Your task to perform on an android device: toggle notifications settings in the gmail app Image 0: 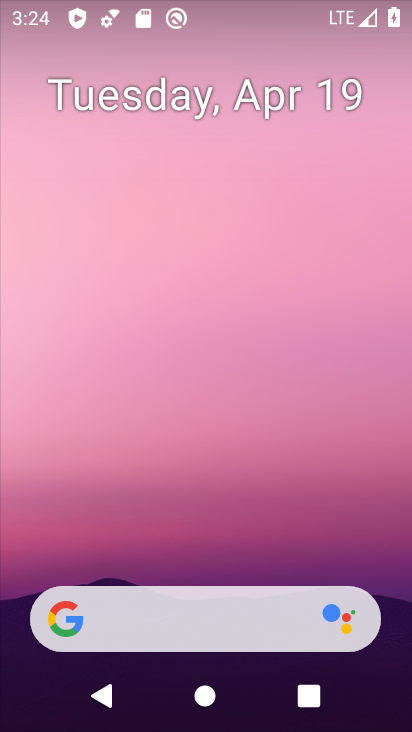
Step 0: drag from (244, 567) to (299, 0)
Your task to perform on an android device: toggle notifications settings in the gmail app Image 1: 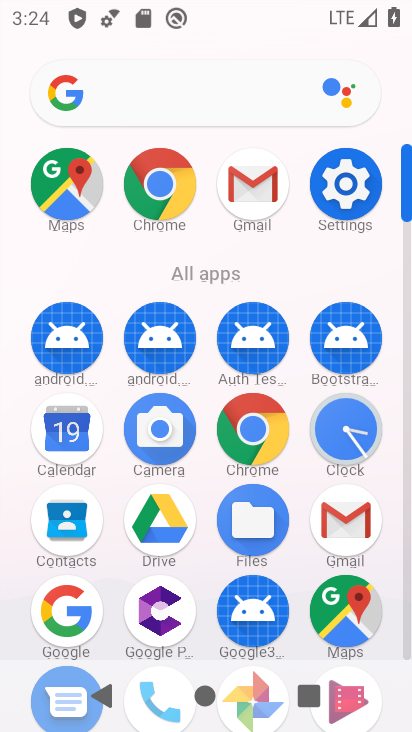
Step 1: click (251, 192)
Your task to perform on an android device: toggle notifications settings in the gmail app Image 2: 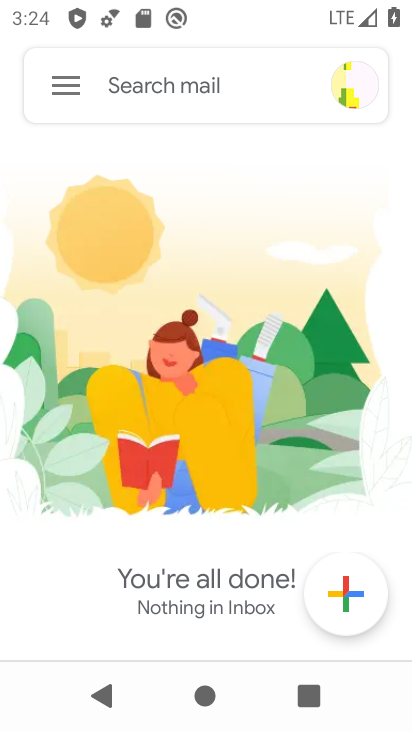
Step 2: click (68, 88)
Your task to perform on an android device: toggle notifications settings in the gmail app Image 3: 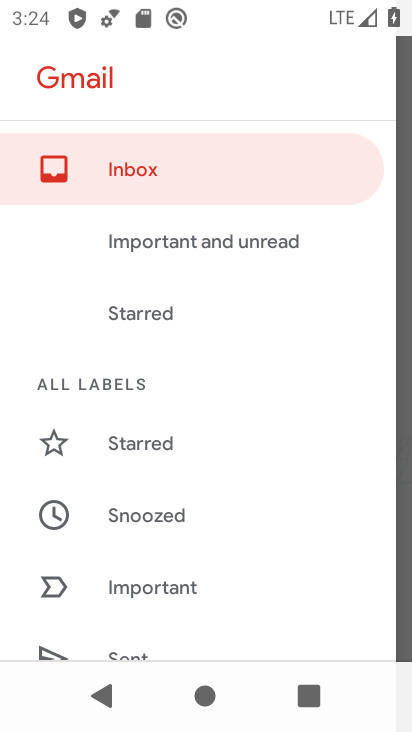
Step 3: drag from (198, 504) to (213, 403)
Your task to perform on an android device: toggle notifications settings in the gmail app Image 4: 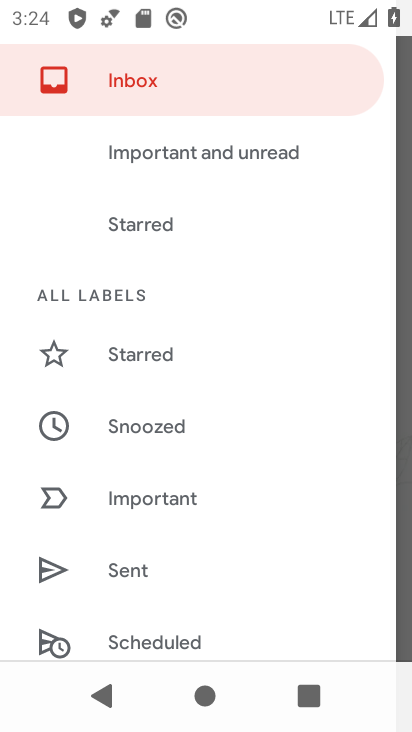
Step 4: drag from (219, 534) to (246, 435)
Your task to perform on an android device: toggle notifications settings in the gmail app Image 5: 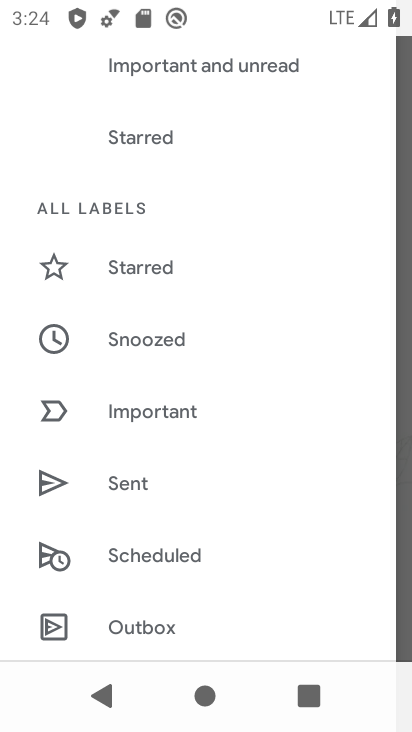
Step 5: drag from (205, 524) to (231, 440)
Your task to perform on an android device: toggle notifications settings in the gmail app Image 6: 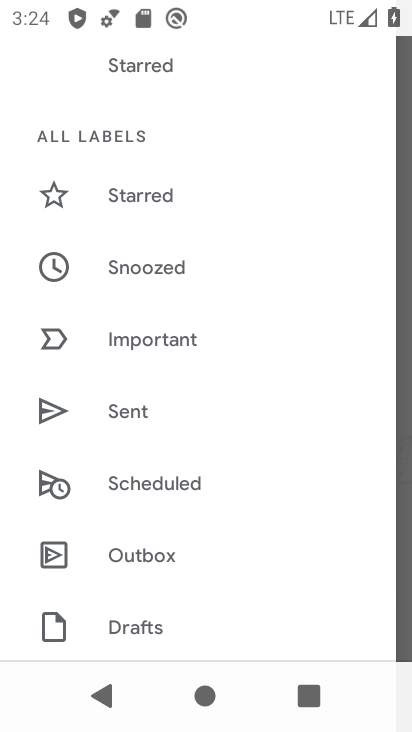
Step 6: drag from (199, 553) to (225, 454)
Your task to perform on an android device: toggle notifications settings in the gmail app Image 7: 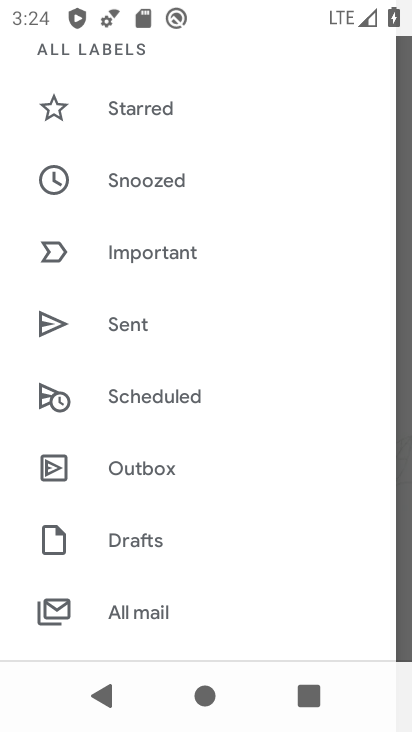
Step 7: drag from (206, 558) to (238, 461)
Your task to perform on an android device: toggle notifications settings in the gmail app Image 8: 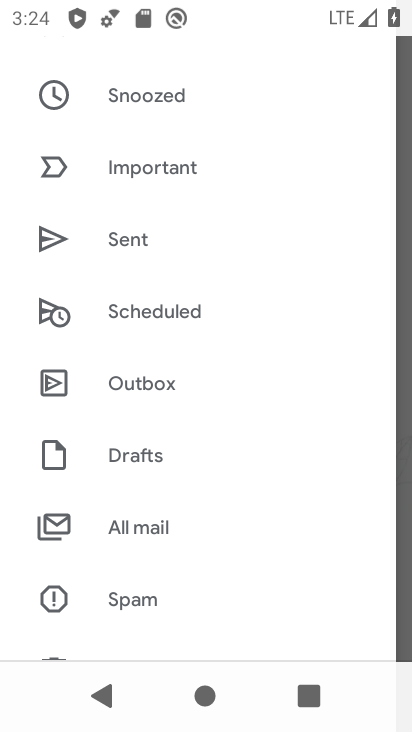
Step 8: drag from (193, 577) to (232, 461)
Your task to perform on an android device: toggle notifications settings in the gmail app Image 9: 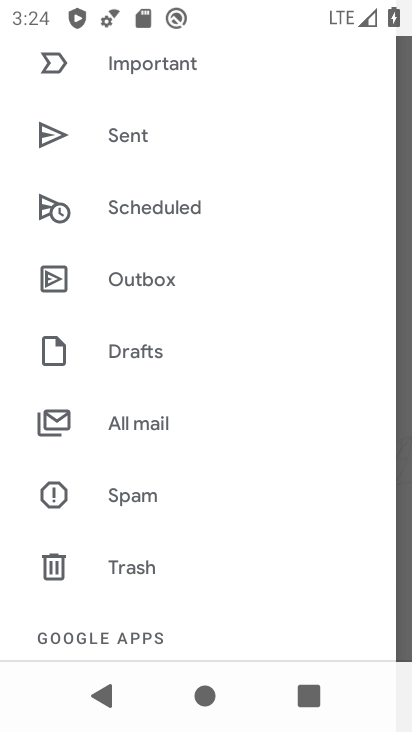
Step 9: drag from (190, 580) to (221, 454)
Your task to perform on an android device: toggle notifications settings in the gmail app Image 10: 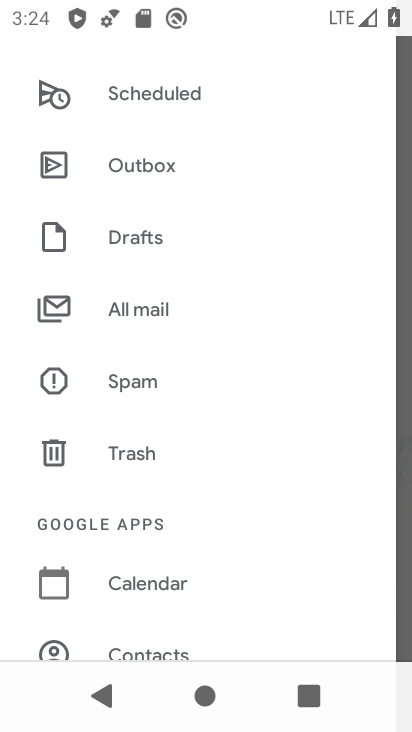
Step 10: drag from (195, 552) to (221, 480)
Your task to perform on an android device: toggle notifications settings in the gmail app Image 11: 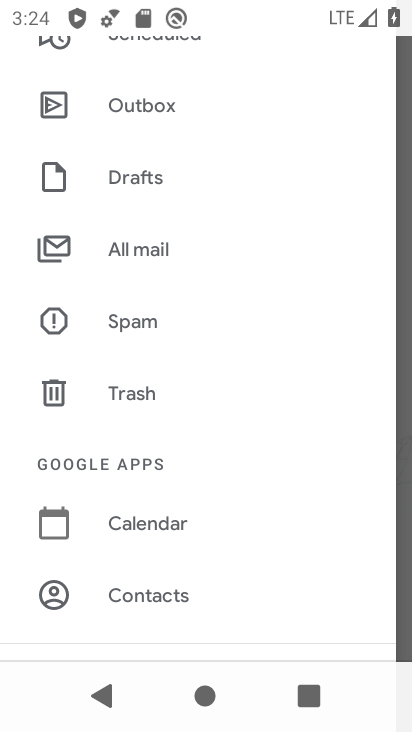
Step 11: drag from (179, 573) to (231, 482)
Your task to perform on an android device: toggle notifications settings in the gmail app Image 12: 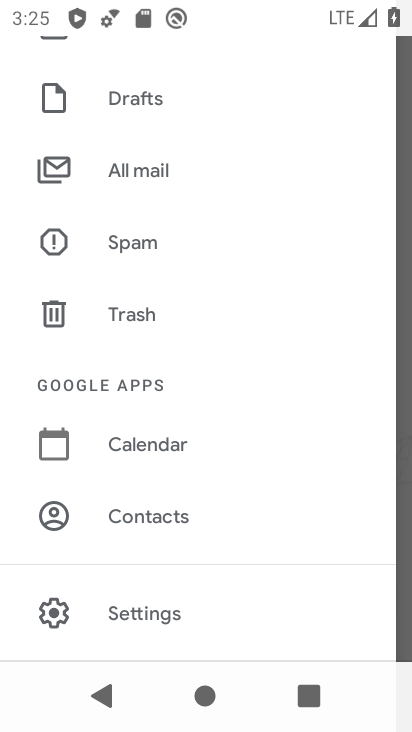
Step 12: drag from (193, 599) to (208, 508)
Your task to perform on an android device: toggle notifications settings in the gmail app Image 13: 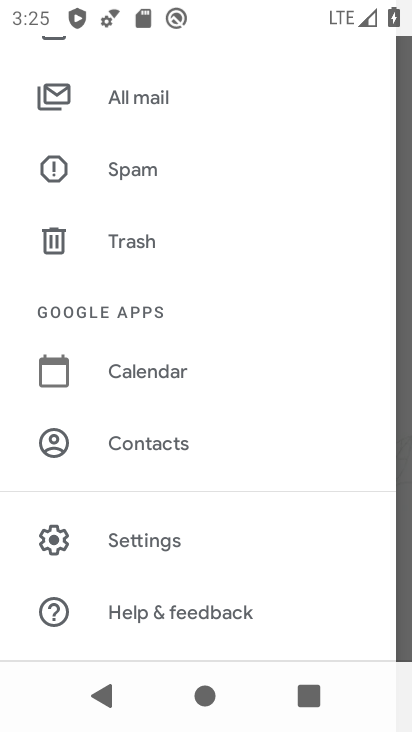
Step 13: click (147, 543)
Your task to perform on an android device: toggle notifications settings in the gmail app Image 14: 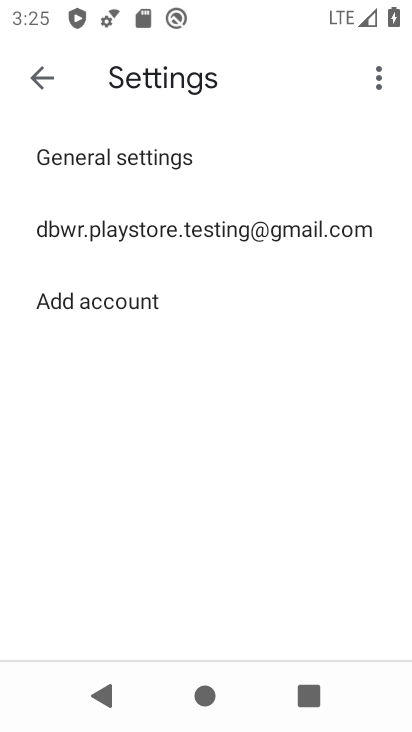
Step 14: click (218, 238)
Your task to perform on an android device: toggle notifications settings in the gmail app Image 15: 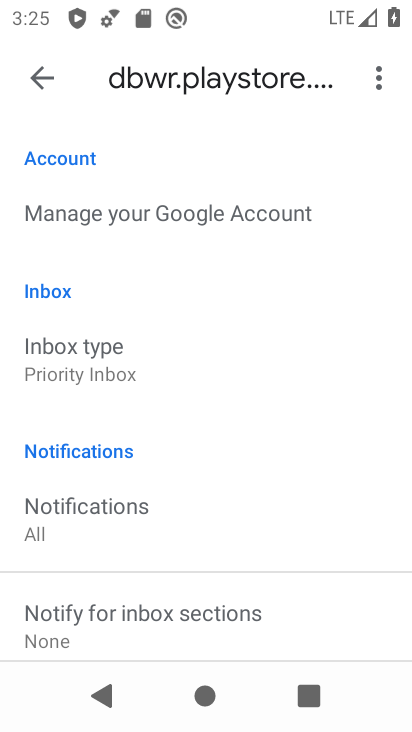
Step 15: drag from (104, 528) to (144, 437)
Your task to perform on an android device: toggle notifications settings in the gmail app Image 16: 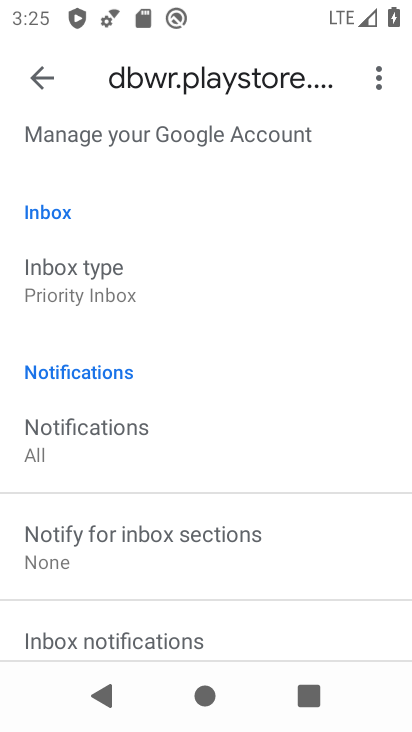
Step 16: drag from (112, 577) to (169, 461)
Your task to perform on an android device: toggle notifications settings in the gmail app Image 17: 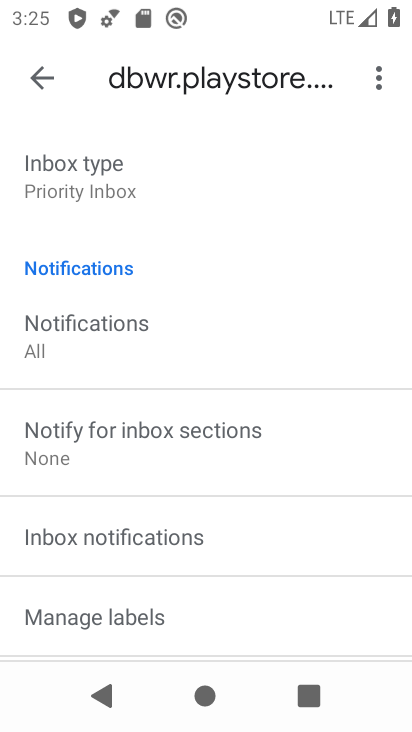
Step 17: drag from (137, 600) to (188, 493)
Your task to perform on an android device: toggle notifications settings in the gmail app Image 18: 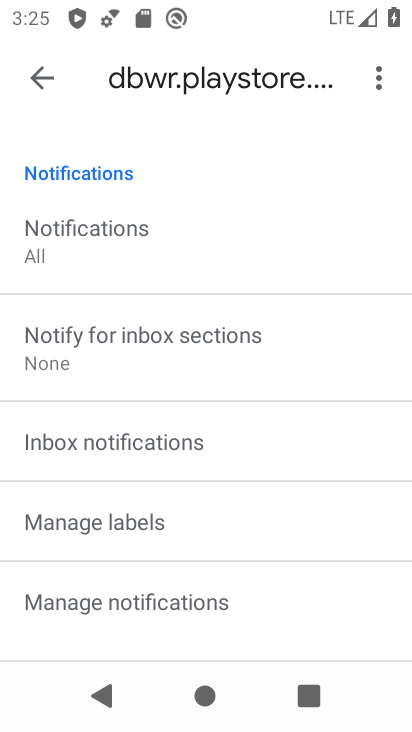
Step 18: click (114, 602)
Your task to perform on an android device: toggle notifications settings in the gmail app Image 19: 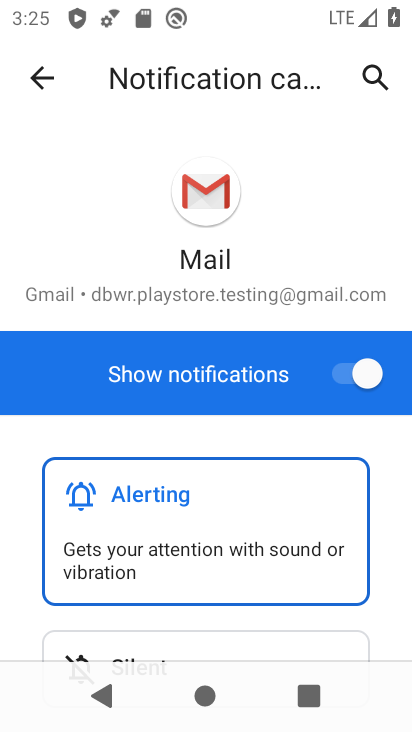
Step 19: click (365, 376)
Your task to perform on an android device: toggle notifications settings in the gmail app Image 20: 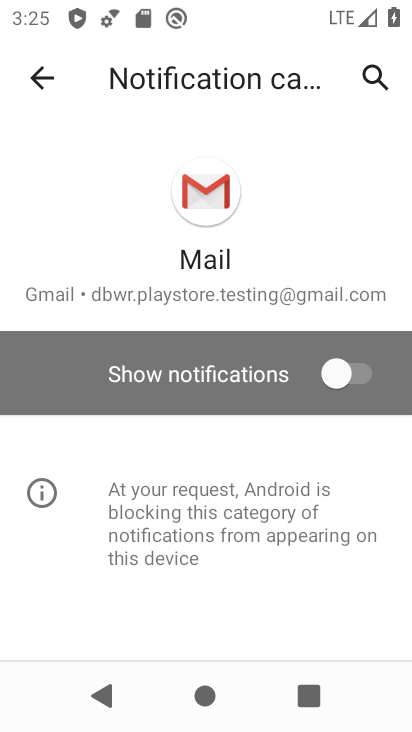
Step 20: task complete